Your task to perform on an android device: Show me popular games on the Play Store Image 0: 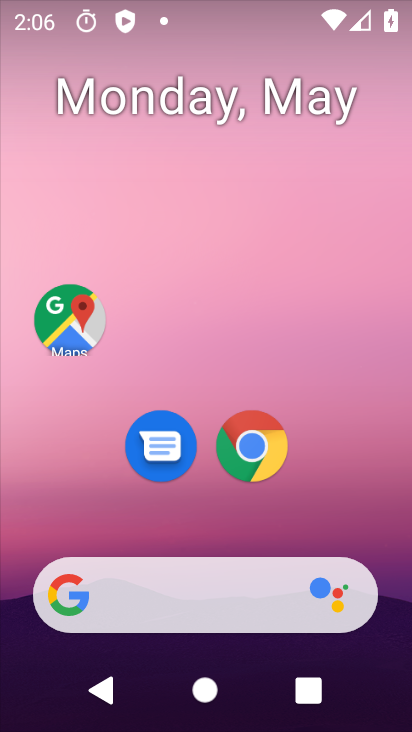
Step 0: press home button
Your task to perform on an android device: Show me popular games on the Play Store Image 1: 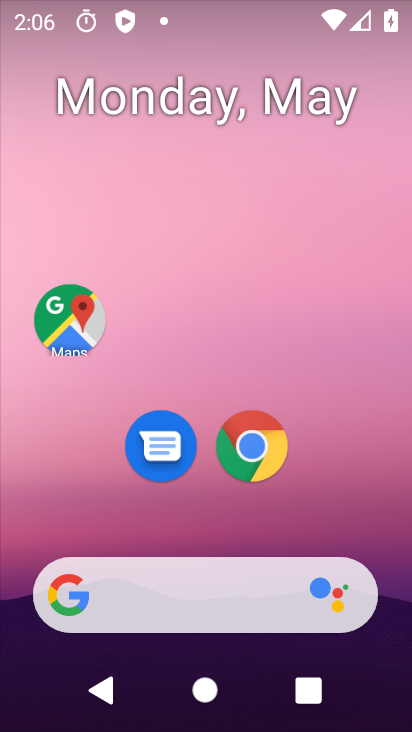
Step 1: drag from (218, 570) to (270, 137)
Your task to perform on an android device: Show me popular games on the Play Store Image 2: 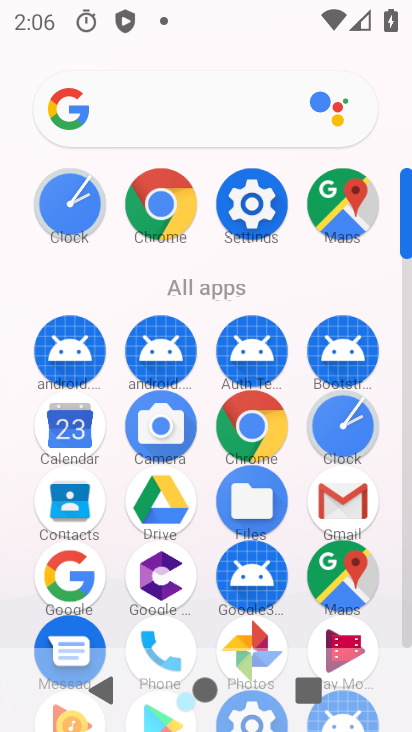
Step 2: drag from (218, 606) to (220, 285)
Your task to perform on an android device: Show me popular games on the Play Store Image 3: 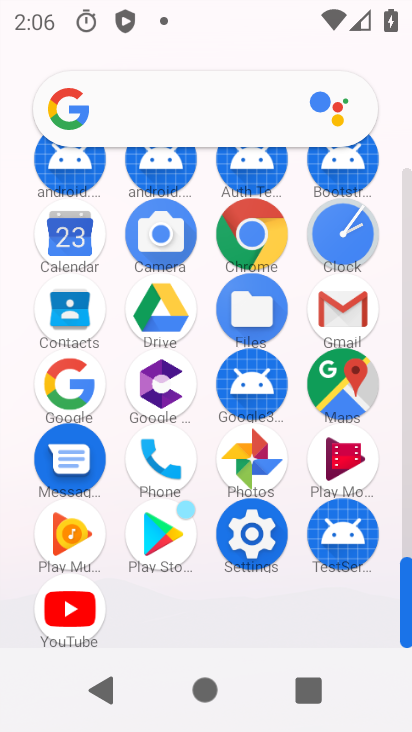
Step 3: click (168, 559)
Your task to perform on an android device: Show me popular games on the Play Store Image 4: 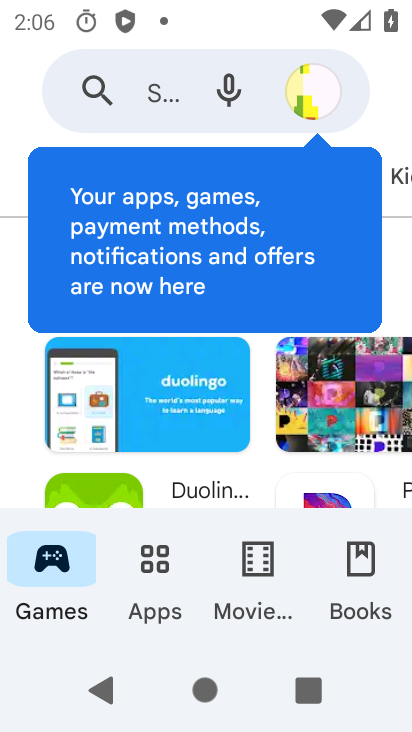
Step 4: drag from (259, 478) to (258, 128)
Your task to perform on an android device: Show me popular games on the Play Store Image 5: 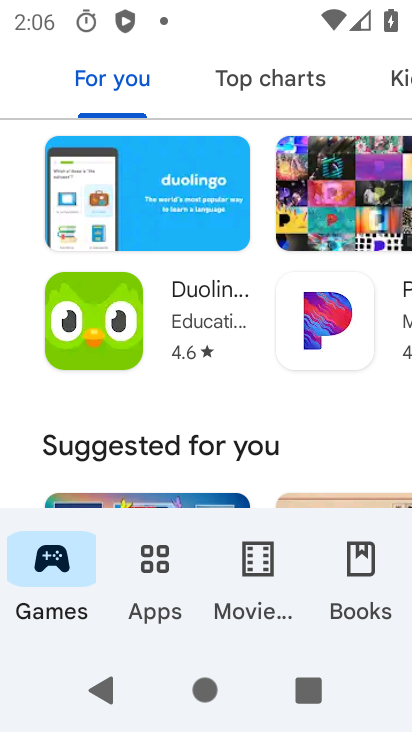
Step 5: drag from (263, 392) to (271, 26)
Your task to perform on an android device: Show me popular games on the Play Store Image 6: 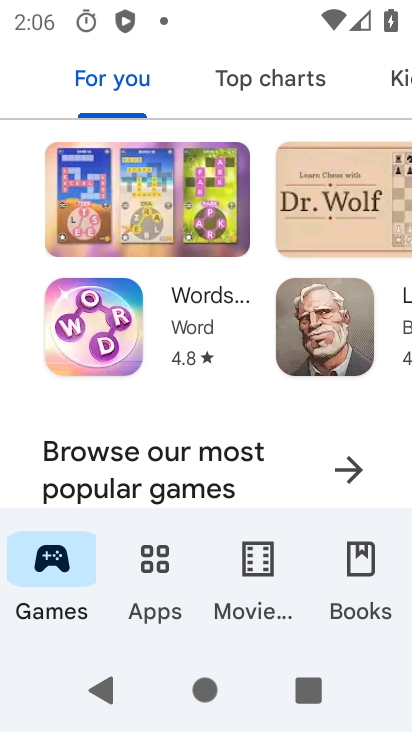
Step 6: click (327, 486)
Your task to perform on an android device: Show me popular games on the Play Store Image 7: 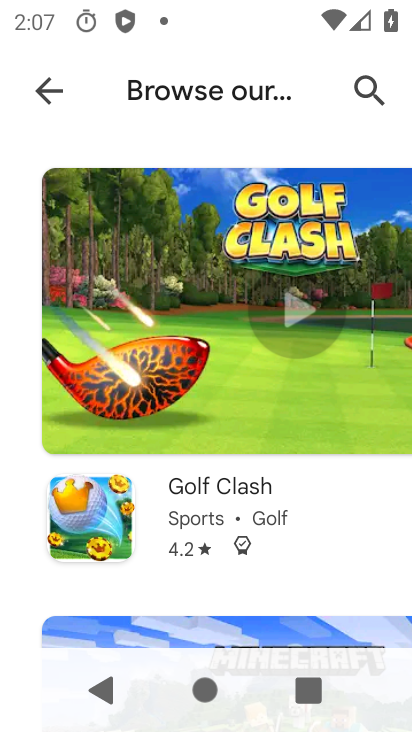
Step 7: task complete